Your task to perform on an android device: turn smart compose on in the gmail app Image 0: 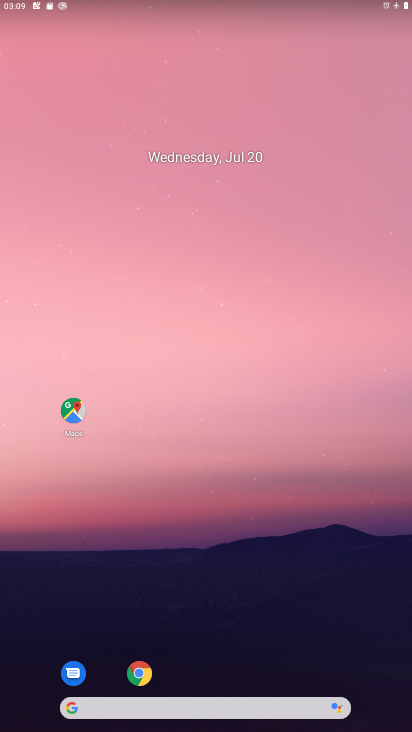
Step 0: drag from (199, 609) to (241, 59)
Your task to perform on an android device: turn smart compose on in the gmail app Image 1: 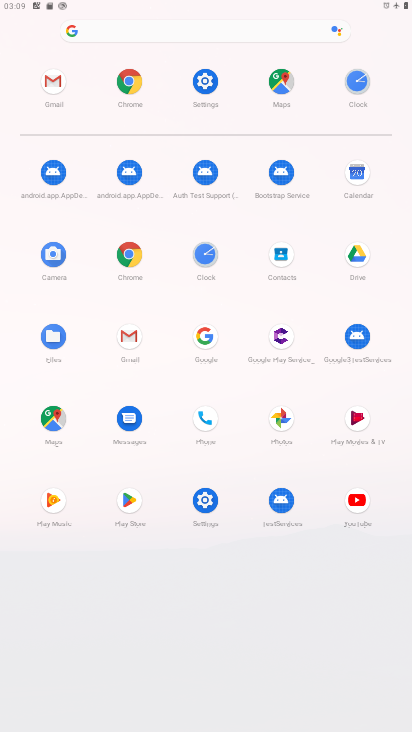
Step 1: click (134, 337)
Your task to perform on an android device: turn smart compose on in the gmail app Image 2: 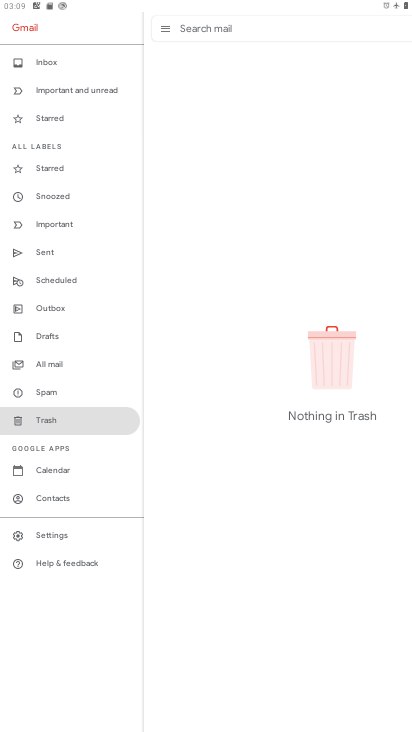
Step 2: click (40, 533)
Your task to perform on an android device: turn smart compose on in the gmail app Image 3: 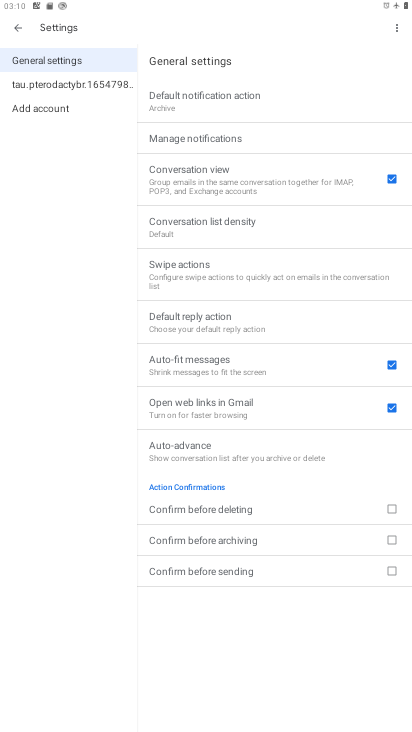
Step 3: click (87, 83)
Your task to perform on an android device: turn smart compose on in the gmail app Image 4: 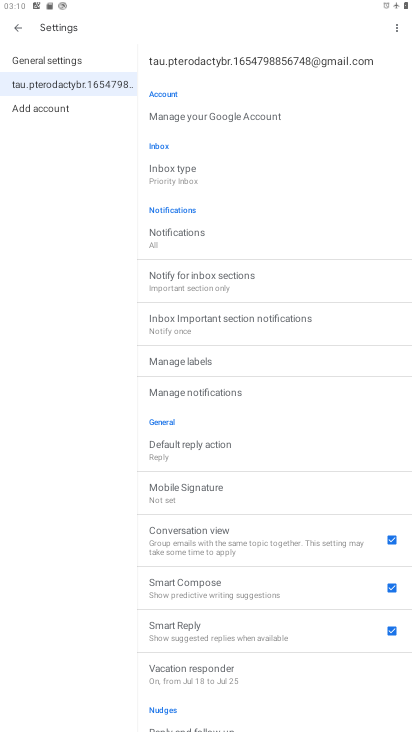
Step 4: task complete